Your task to perform on an android device: open chrome and create a bookmark for the current page Image 0: 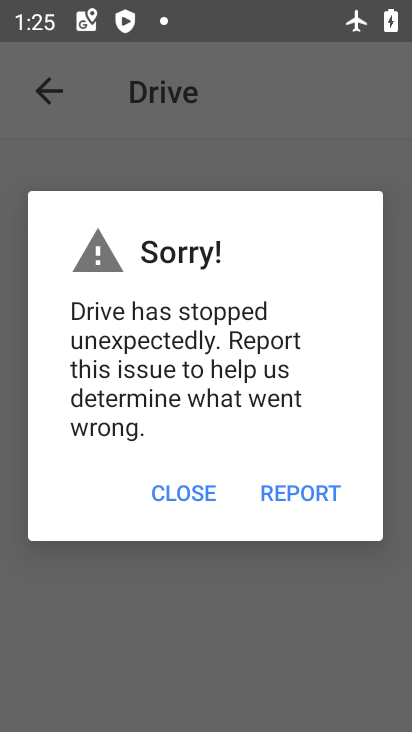
Step 0: click (200, 491)
Your task to perform on an android device: open chrome and create a bookmark for the current page Image 1: 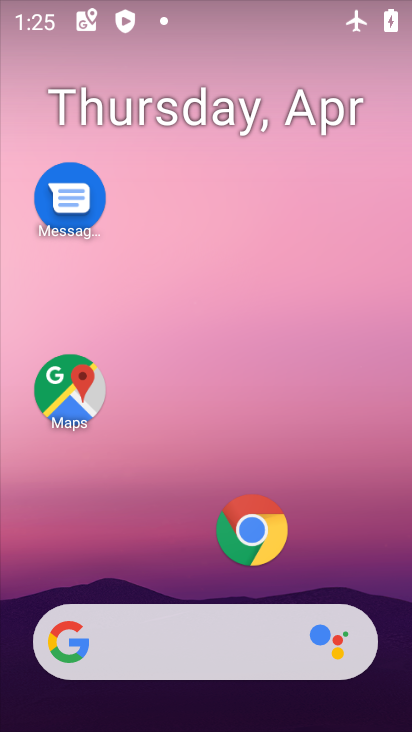
Step 1: press home button
Your task to perform on an android device: open chrome and create a bookmark for the current page Image 2: 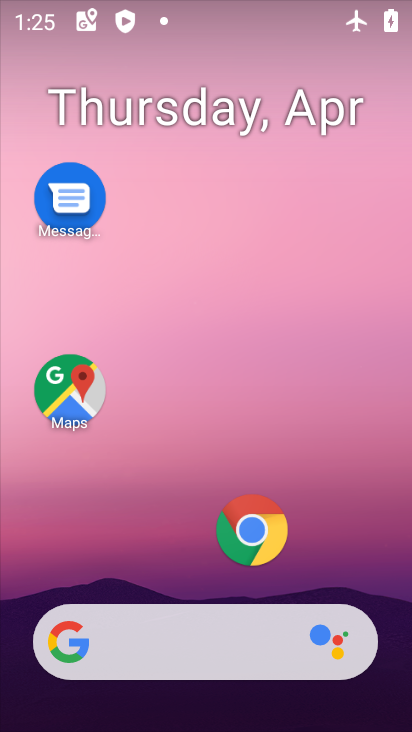
Step 2: click (243, 546)
Your task to perform on an android device: open chrome and create a bookmark for the current page Image 3: 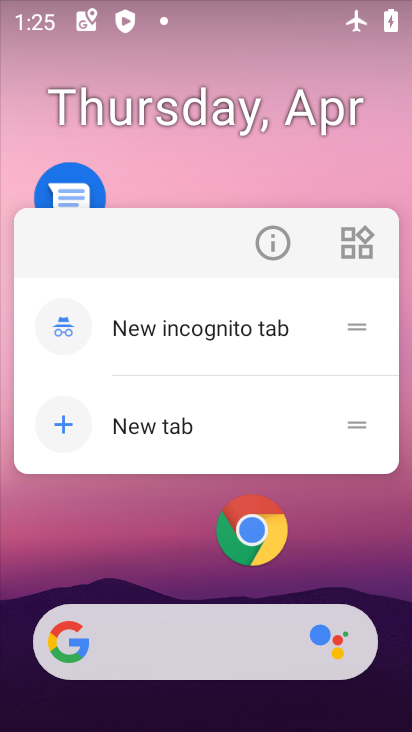
Step 3: click (245, 544)
Your task to perform on an android device: open chrome and create a bookmark for the current page Image 4: 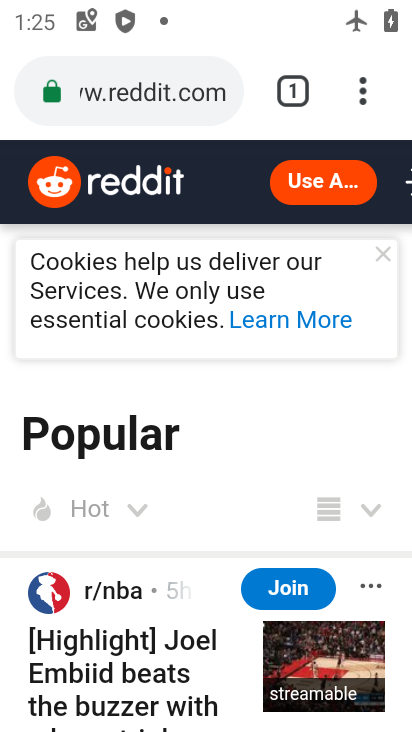
Step 4: task complete